Your task to perform on an android device: turn on priority inbox in the gmail app Image 0: 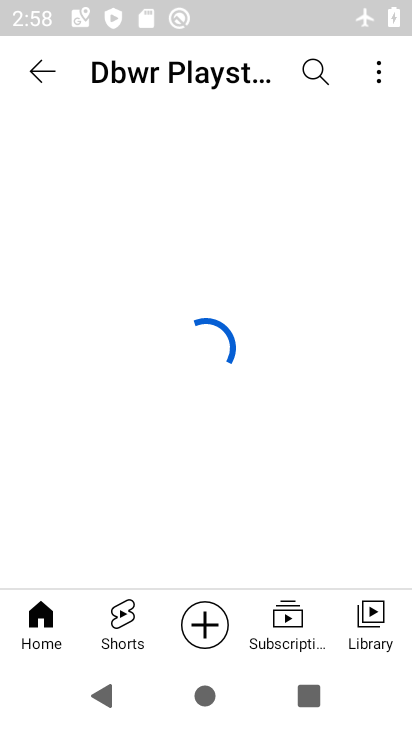
Step 0: click (230, 622)
Your task to perform on an android device: turn on priority inbox in the gmail app Image 1: 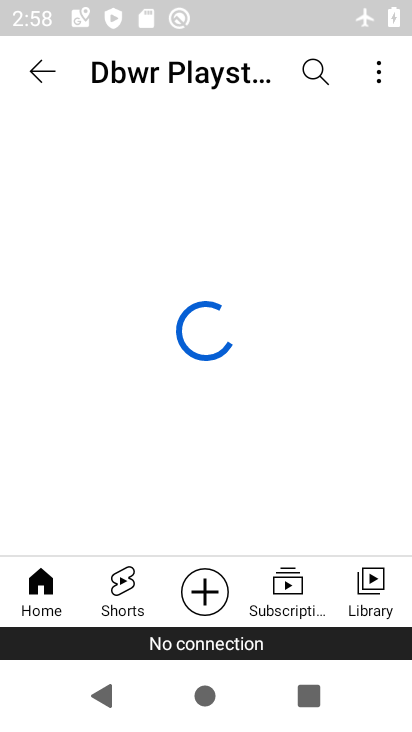
Step 1: type "yahoo.com"
Your task to perform on an android device: turn on priority inbox in the gmail app Image 2: 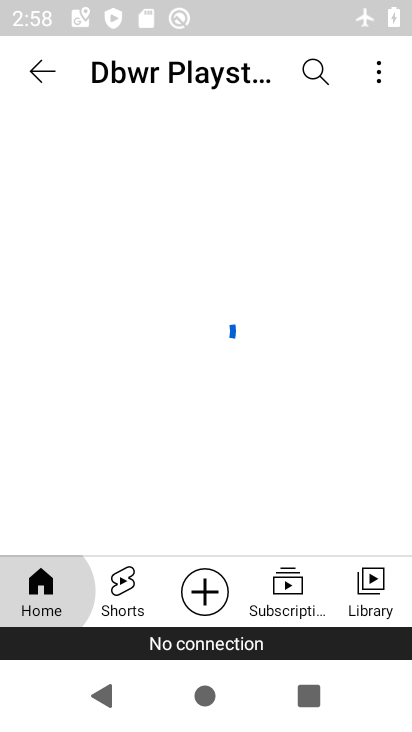
Step 2: task complete